Your task to perform on an android device: move a message to another label in the gmail app Image 0: 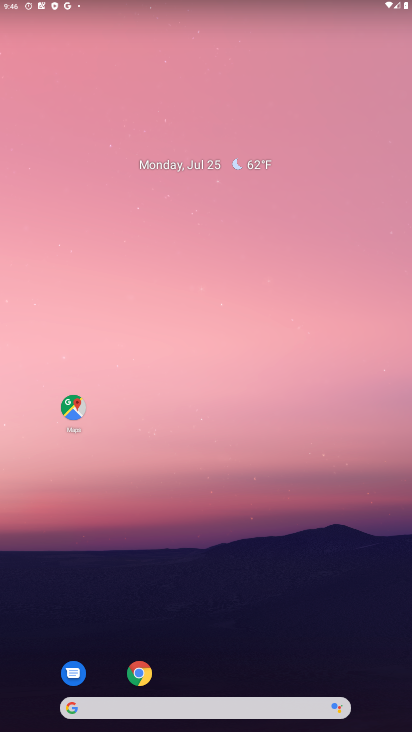
Step 0: drag from (177, 476) to (189, 138)
Your task to perform on an android device: move a message to another label in the gmail app Image 1: 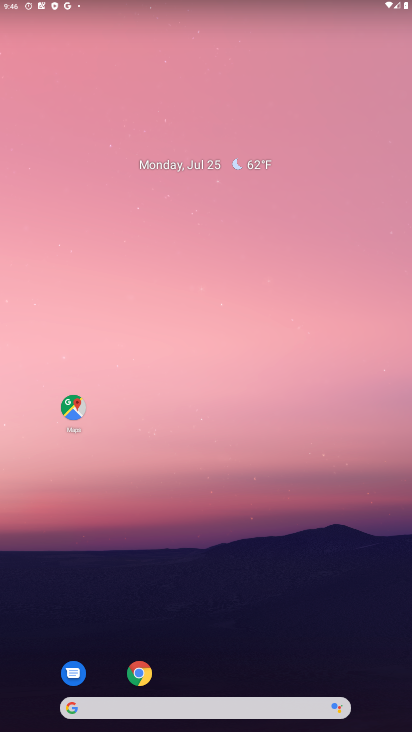
Step 1: drag from (201, 685) to (251, 121)
Your task to perform on an android device: move a message to another label in the gmail app Image 2: 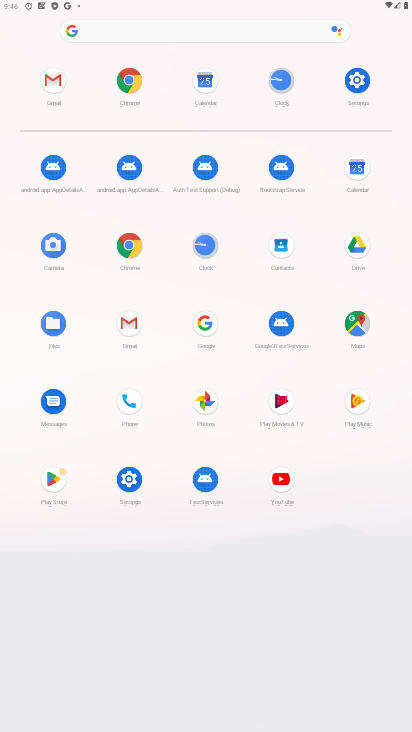
Step 2: click (132, 313)
Your task to perform on an android device: move a message to another label in the gmail app Image 3: 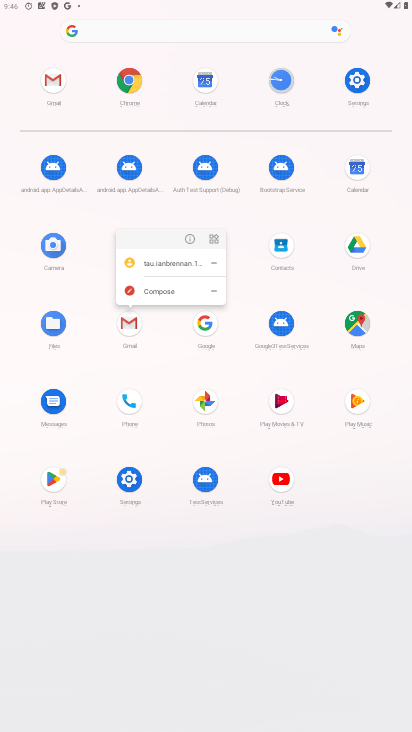
Step 3: click (188, 234)
Your task to perform on an android device: move a message to another label in the gmail app Image 4: 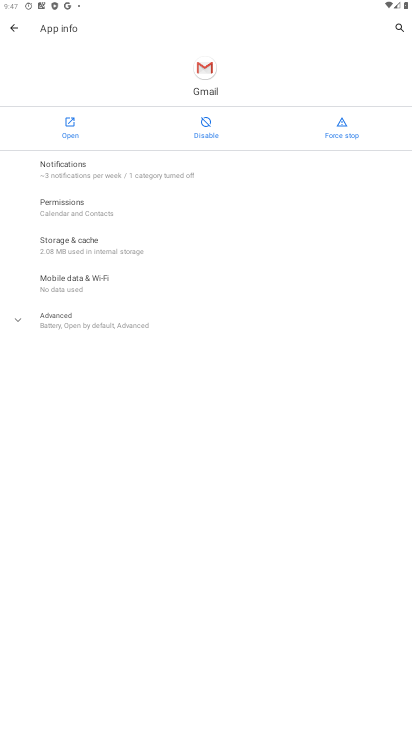
Step 4: click (69, 118)
Your task to perform on an android device: move a message to another label in the gmail app Image 5: 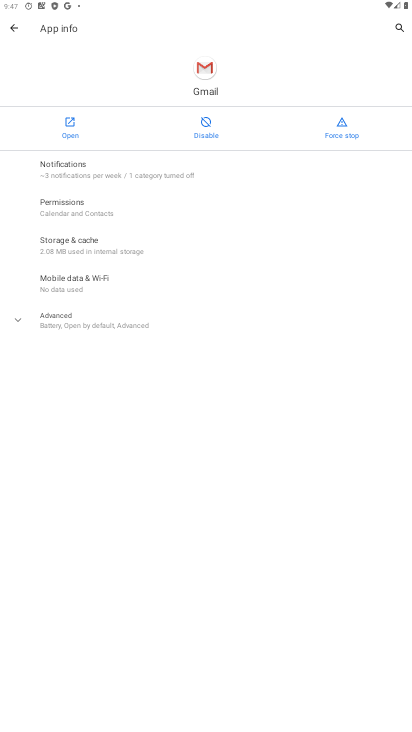
Step 5: click (66, 124)
Your task to perform on an android device: move a message to another label in the gmail app Image 6: 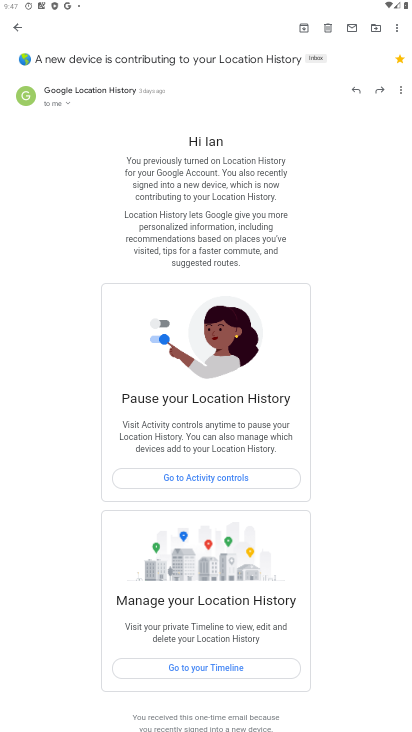
Step 6: drag from (391, 19) to (357, 57)
Your task to perform on an android device: move a message to another label in the gmail app Image 7: 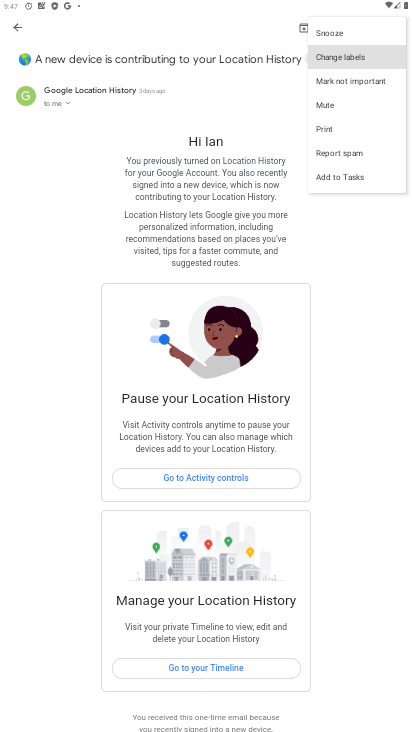
Step 7: click (356, 57)
Your task to perform on an android device: move a message to another label in the gmail app Image 8: 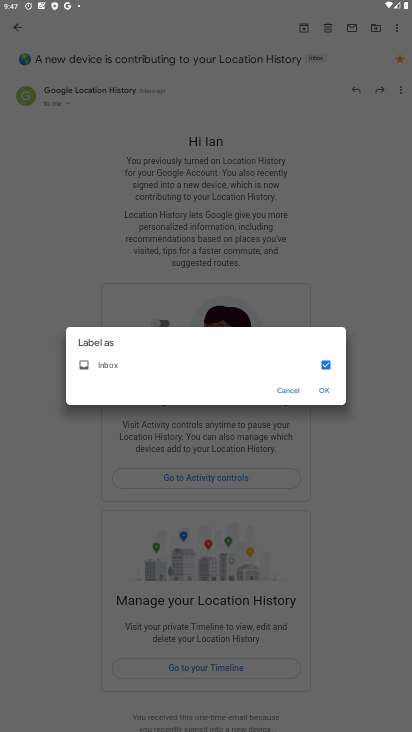
Step 8: click (321, 382)
Your task to perform on an android device: move a message to another label in the gmail app Image 9: 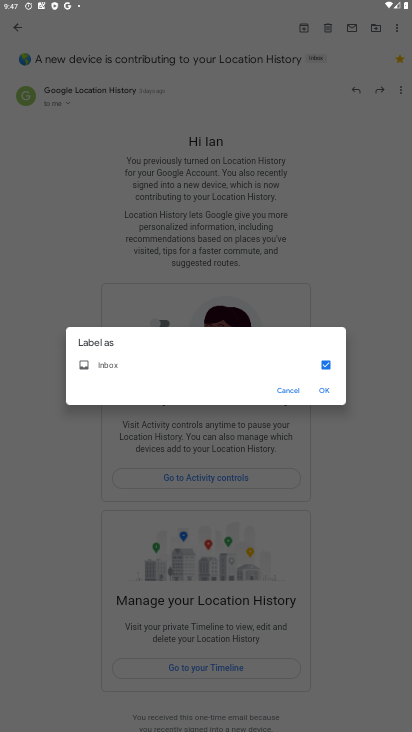
Step 9: task complete